Your task to perform on an android device: turn on improve location accuracy Image 0: 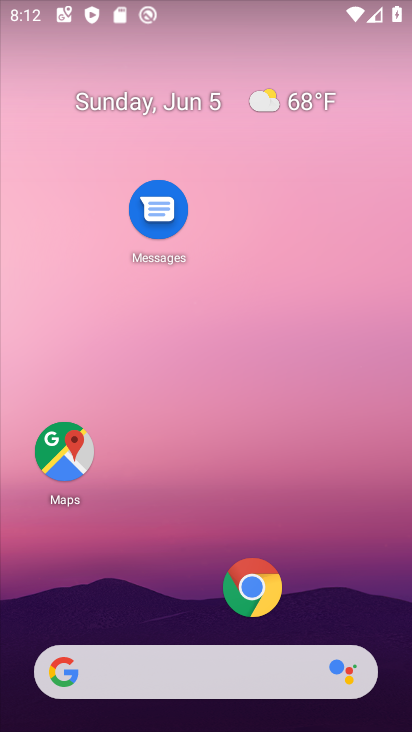
Step 0: drag from (314, 615) to (333, 116)
Your task to perform on an android device: turn on improve location accuracy Image 1: 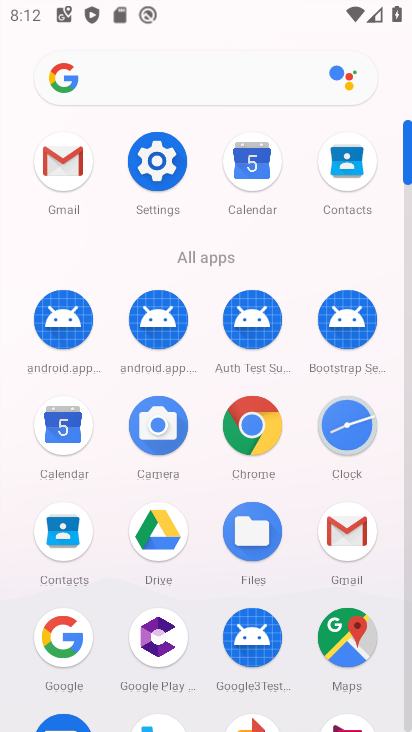
Step 1: click (154, 154)
Your task to perform on an android device: turn on improve location accuracy Image 2: 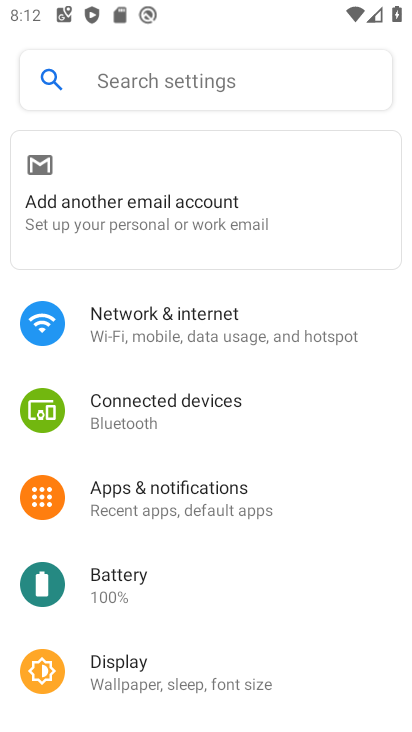
Step 2: drag from (194, 637) to (211, 27)
Your task to perform on an android device: turn on improve location accuracy Image 3: 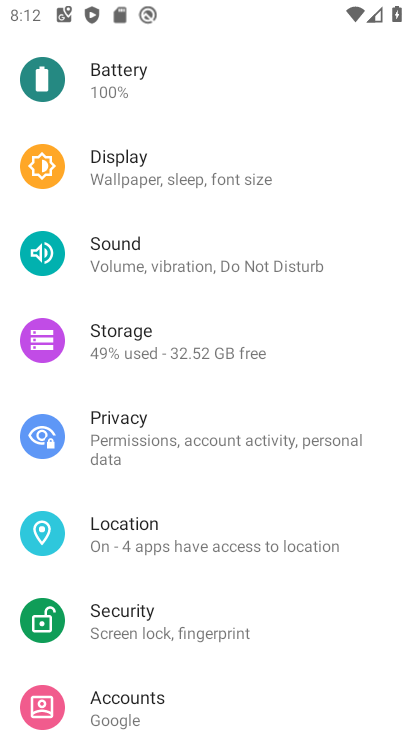
Step 3: click (170, 523)
Your task to perform on an android device: turn on improve location accuracy Image 4: 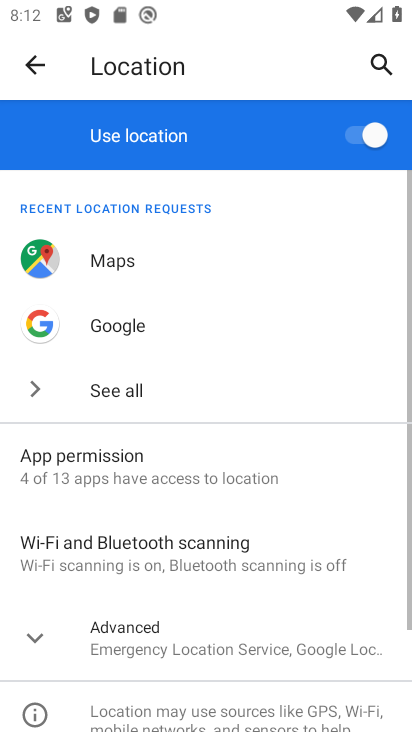
Step 4: click (33, 632)
Your task to perform on an android device: turn on improve location accuracy Image 5: 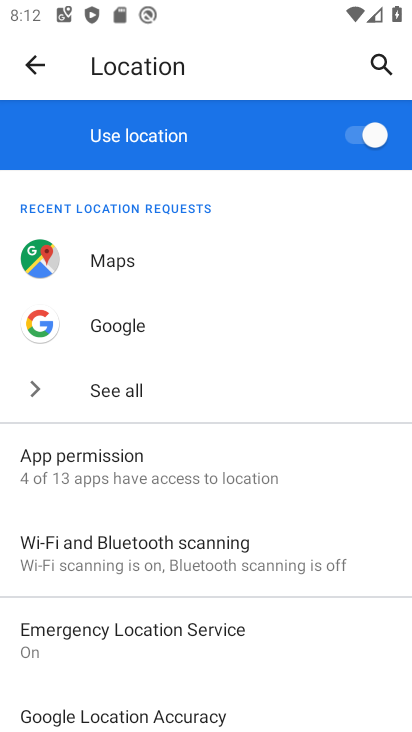
Step 5: click (233, 706)
Your task to perform on an android device: turn on improve location accuracy Image 6: 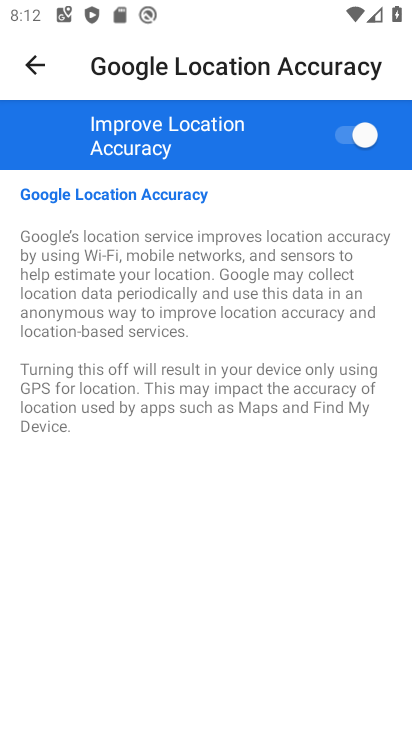
Step 6: task complete